Your task to perform on an android device: Open the Play Movies app and select the watchlist tab. Image 0: 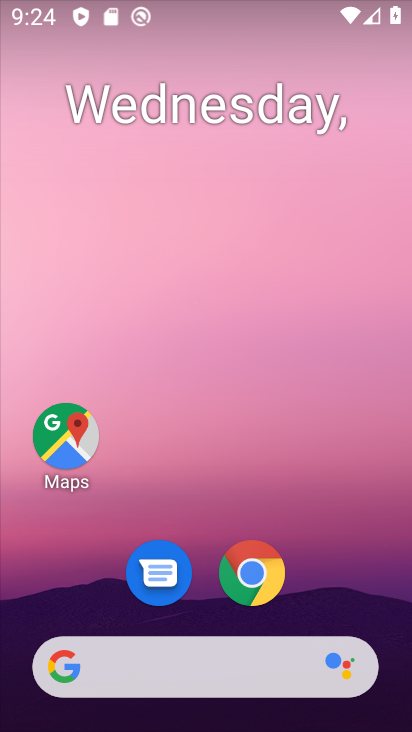
Step 0: drag from (337, 581) to (347, 274)
Your task to perform on an android device: Open the Play Movies app and select the watchlist tab. Image 1: 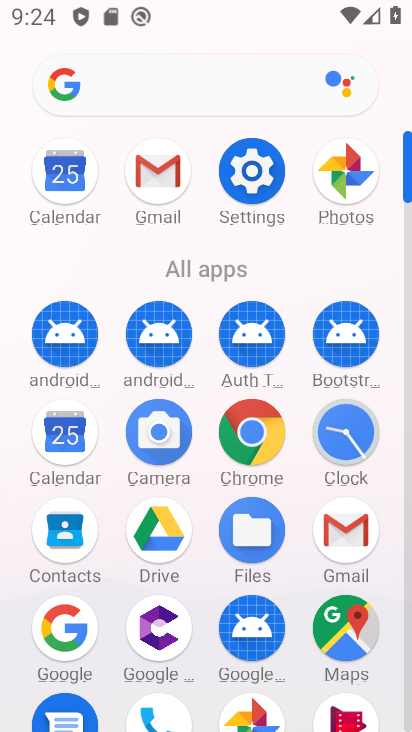
Step 1: drag from (296, 591) to (314, 340)
Your task to perform on an android device: Open the Play Movies app and select the watchlist tab. Image 2: 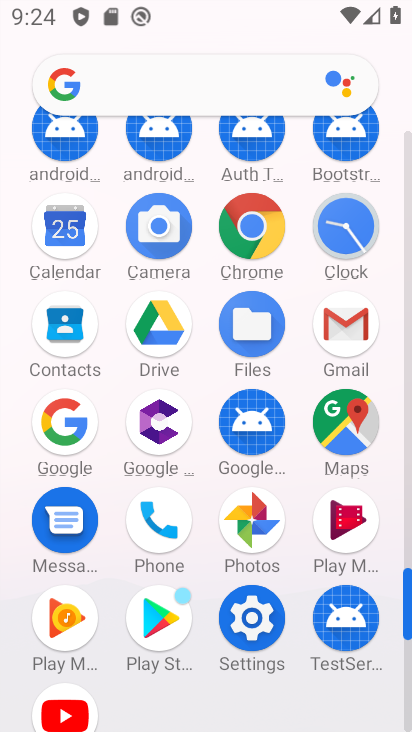
Step 2: click (348, 505)
Your task to perform on an android device: Open the Play Movies app and select the watchlist tab. Image 3: 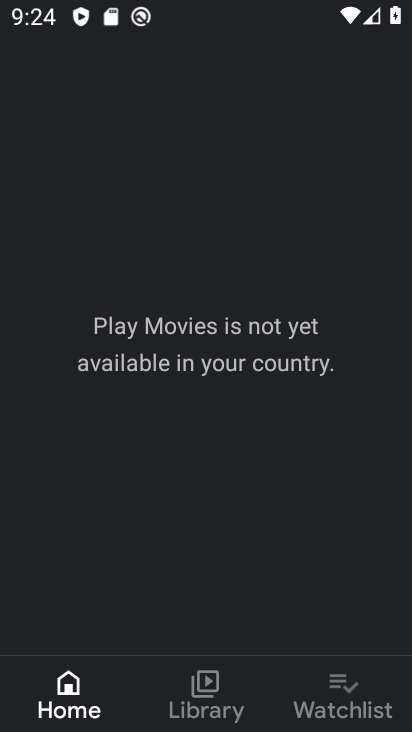
Step 3: click (342, 684)
Your task to perform on an android device: Open the Play Movies app and select the watchlist tab. Image 4: 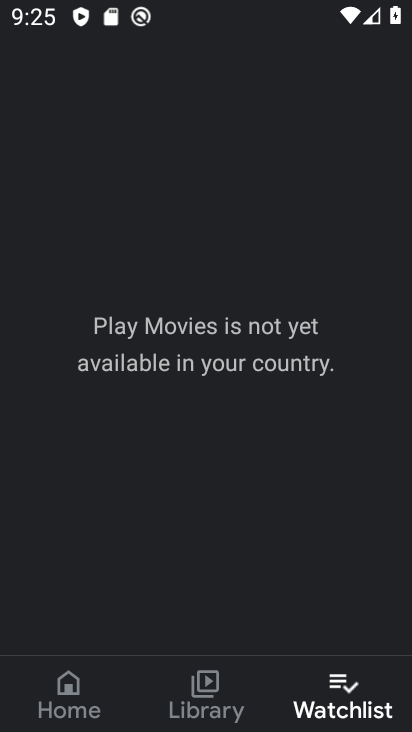
Step 4: task complete